Your task to perform on an android device: clear history in the chrome app Image 0: 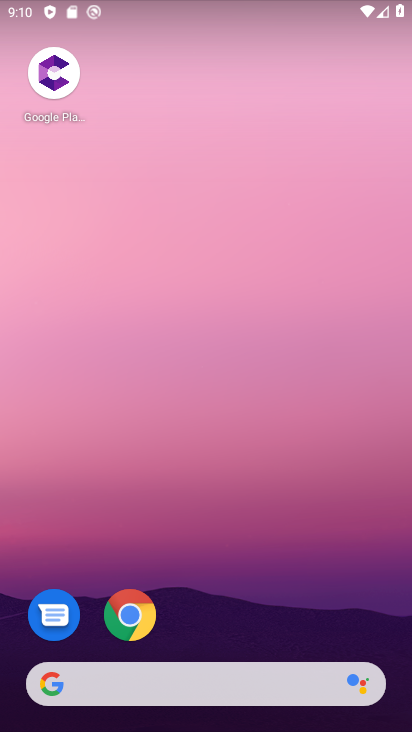
Step 0: drag from (299, 468) to (287, 69)
Your task to perform on an android device: clear history in the chrome app Image 1: 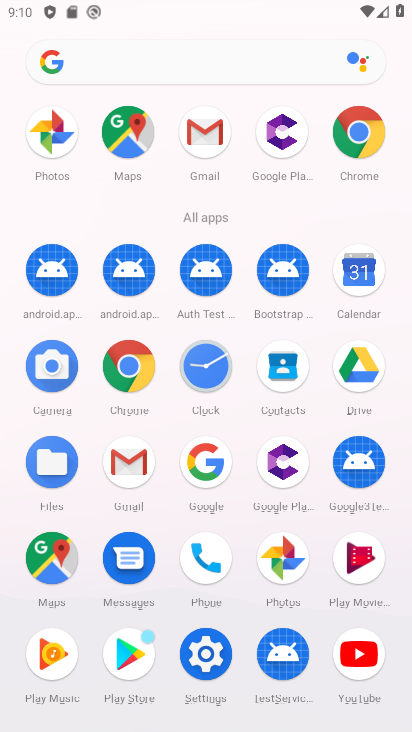
Step 1: click (368, 155)
Your task to perform on an android device: clear history in the chrome app Image 2: 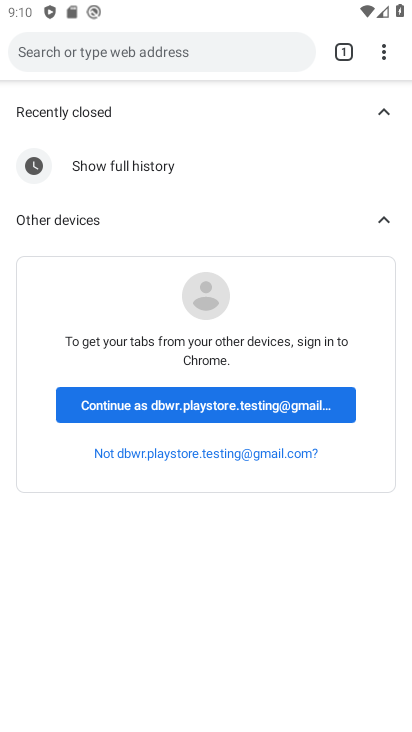
Step 2: task complete